Your task to perform on an android device: Open Android settings Image 0: 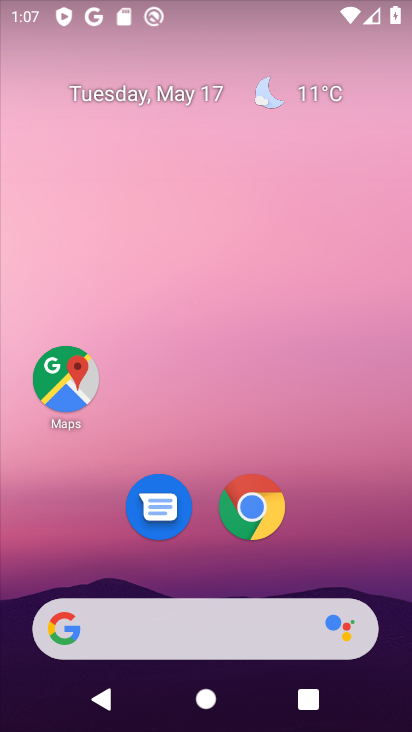
Step 0: drag from (213, 547) to (218, 47)
Your task to perform on an android device: Open Android settings Image 1: 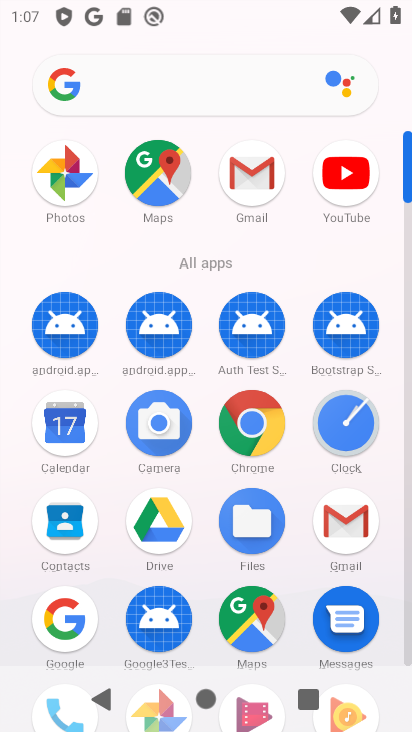
Step 1: drag from (201, 515) to (211, 85)
Your task to perform on an android device: Open Android settings Image 2: 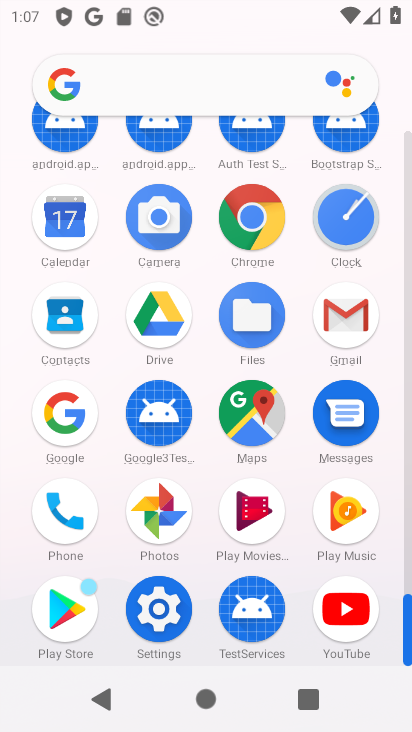
Step 2: click (155, 619)
Your task to perform on an android device: Open Android settings Image 3: 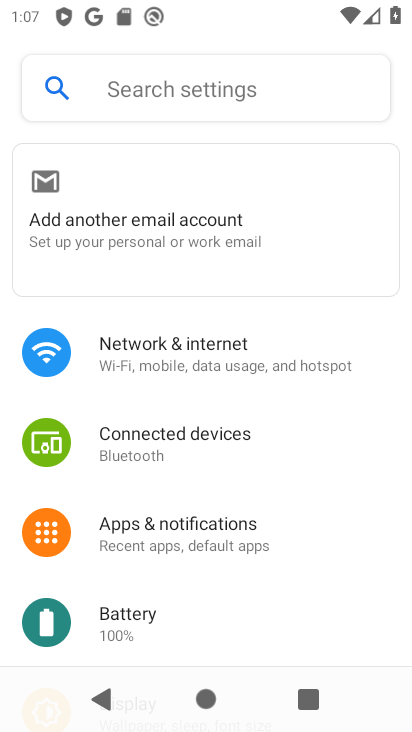
Step 3: task complete